Your task to perform on an android device: Search for "usb-c" on target, select the first entry, and add it to the cart. Image 0: 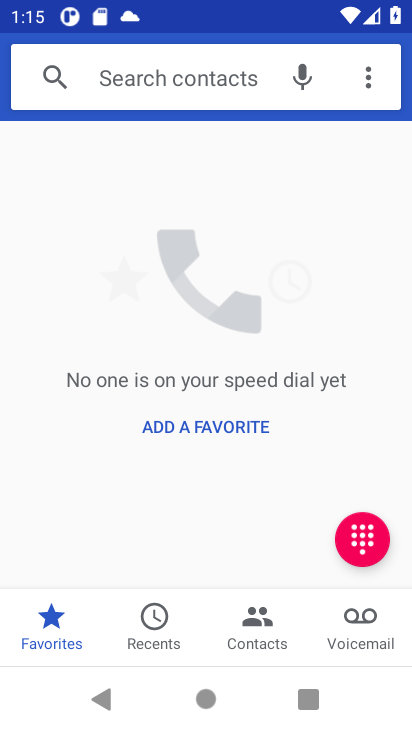
Step 0: press home button
Your task to perform on an android device: Search for "usb-c" on target, select the first entry, and add it to the cart. Image 1: 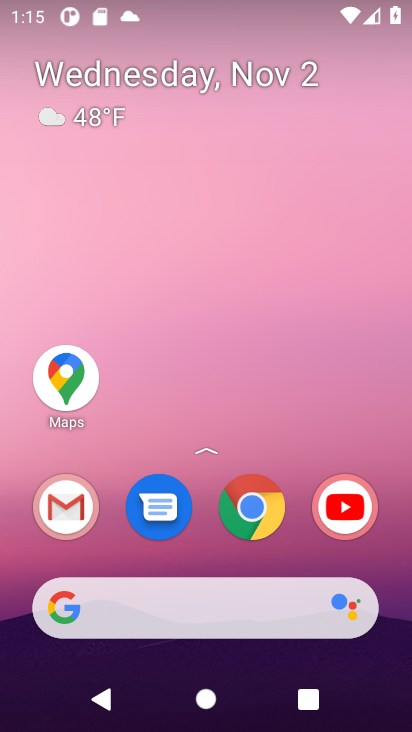
Step 1: click (123, 610)
Your task to perform on an android device: Search for "usb-c" on target, select the first entry, and add it to the cart. Image 2: 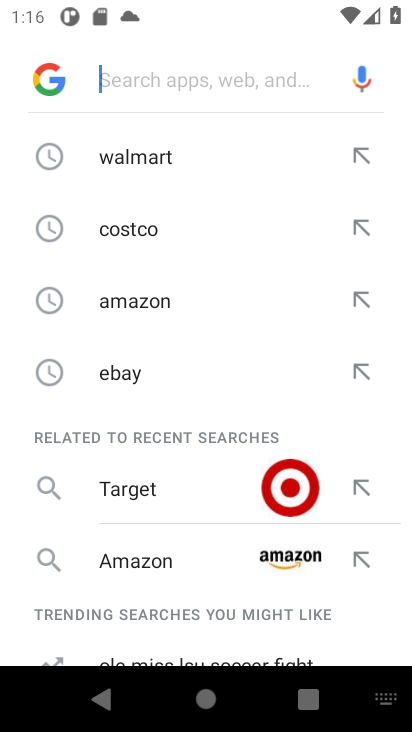
Step 2: type "target"
Your task to perform on an android device: Search for "usb-c" on target, select the first entry, and add it to the cart. Image 3: 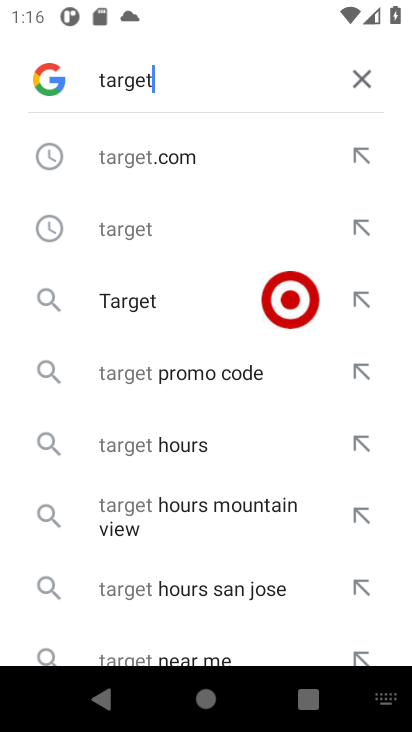
Step 3: type ""
Your task to perform on an android device: Search for "usb-c" on target, select the first entry, and add it to the cart. Image 4: 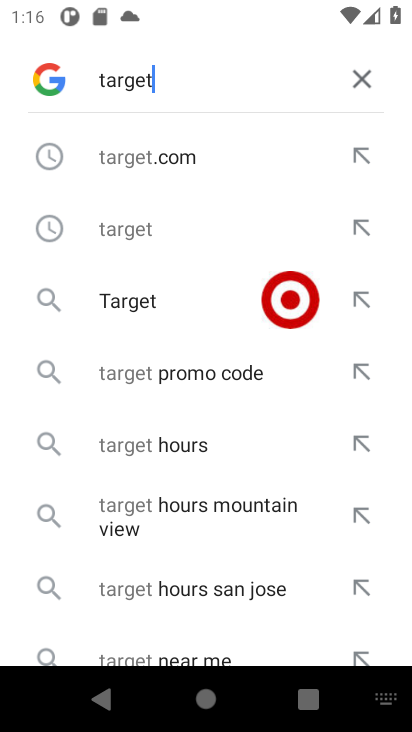
Step 4: click (147, 146)
Your task to perform on an android device: Search for "usb-c" on target, select the first entry, and add it to the cart. Image 5: 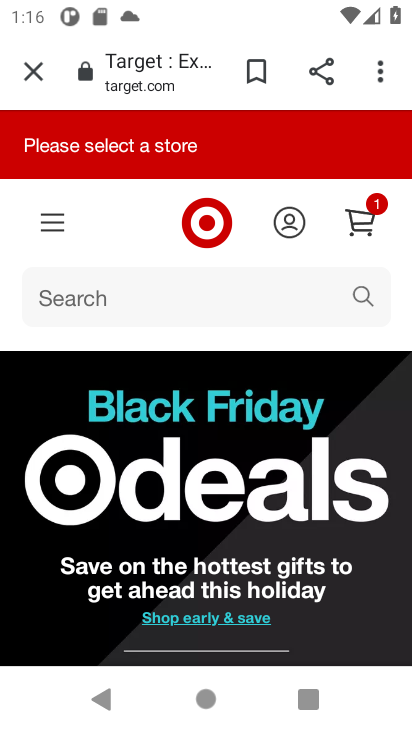
Step 5: click (245, 292)
Your task to perform on an android device: Search for "usb-c" on target, select the first entry, and add it to the cart. Image 6: 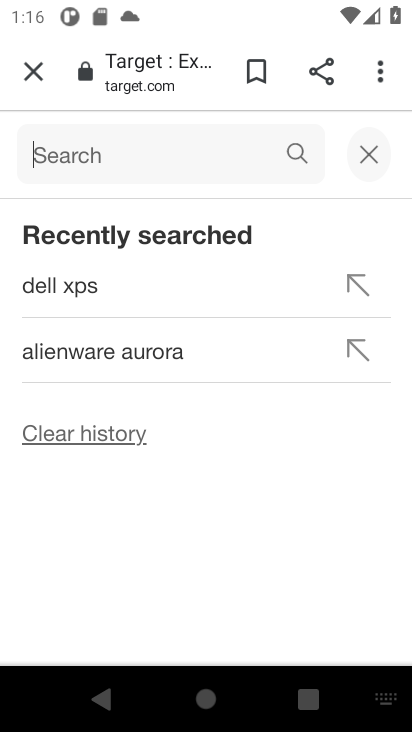
Step 6: type "usb-c"
Your task to perform on an android device: Search for "usb-c" on target, select the first entry, and add it to the cart. Image 7: 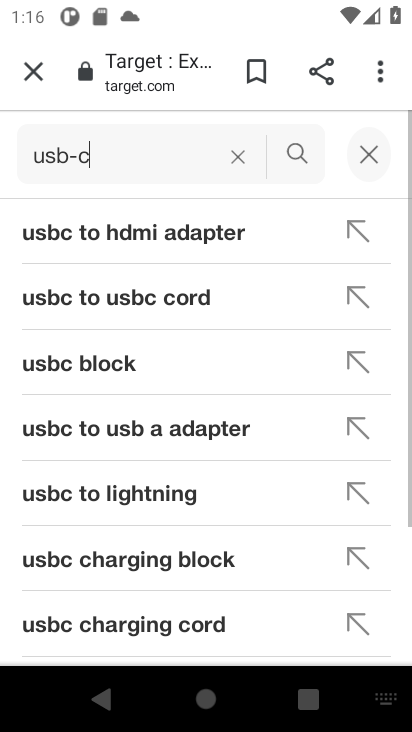
Step 7: type ""
Your task to perform on an android device: Search for "usb-c" on target, select the first entry, and add it to the cart. Image 8: 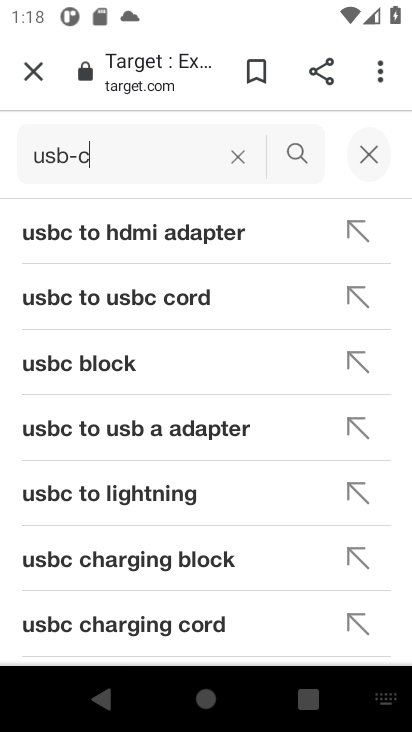
Step 8: click (296, 149)
Your task to perform on an android device: Search for "usb-c" on target, select the first entry, and add it to the cart. Image 9: 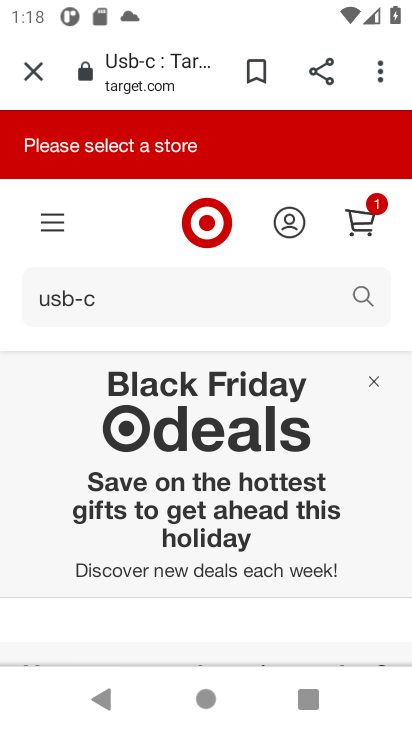
Step 9: drag from (284, 486) to (287, 195)
Your task to perform on an android device: Search for "usb-c" on target, select the first entry, and add it to the cart. Image 10: 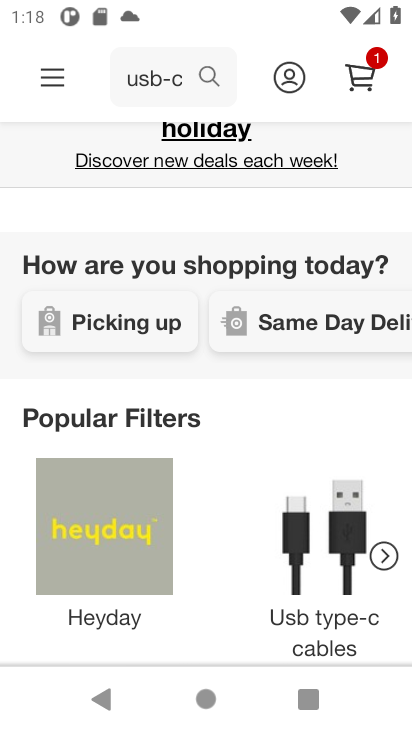
Step 10: drag from (281, 354) to (271, 292)
Your task to perform on an android device: Search for "usb-c" on target, select the first entry, and add it to the cart. Image 11: 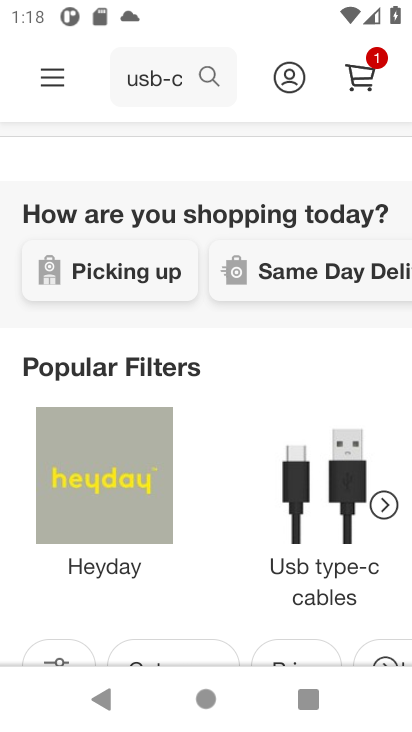
Step 11: drag from (250, 562) to (253, 334)
Your task to perform on an android device: Search for "usb-c" on target, select the first entry, and add it to the cart. Image 12: 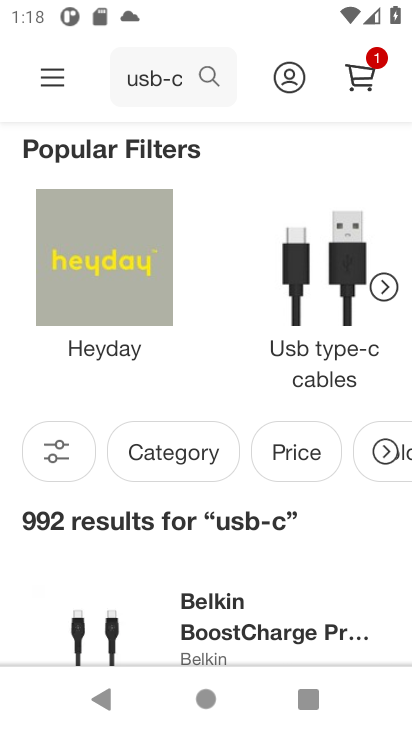
Step 12: drag from (280, 553) to (293, 54)
Your task to perform on an android device: Search for "usb-c" on target, select the first entry, and add it to the cart. Image 13: 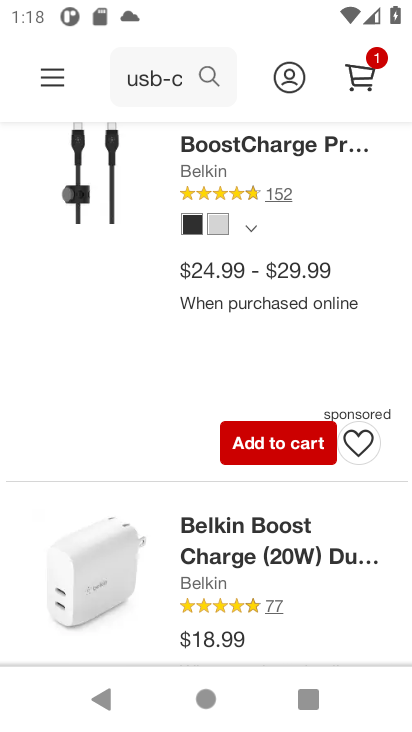
Step 13: click (253, 432)
Your task to perform on an android device: Search for "usb-c" on target, select the first entry, and add it to the cart. Image 14: 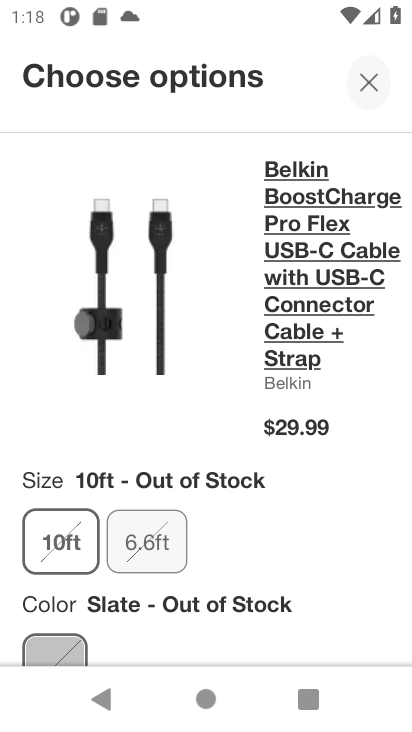
Step 14: drag from (246, 541) to (247, 206)
Your task to perform on an android device: Search for "usb-c" on target, select the first entry, and add it to the cart. Image 15: 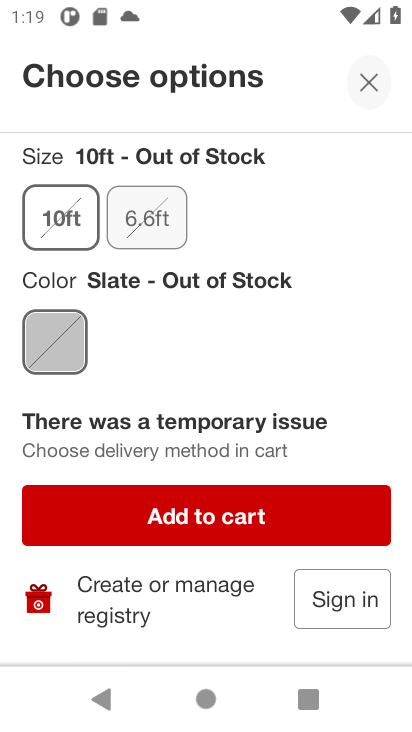
Step 15: drag from (301, 247) to (357, 534)
Your task to perform on an android device: Search for "usb-c" on target, select the first entry, and add it to the cart. Image 16: 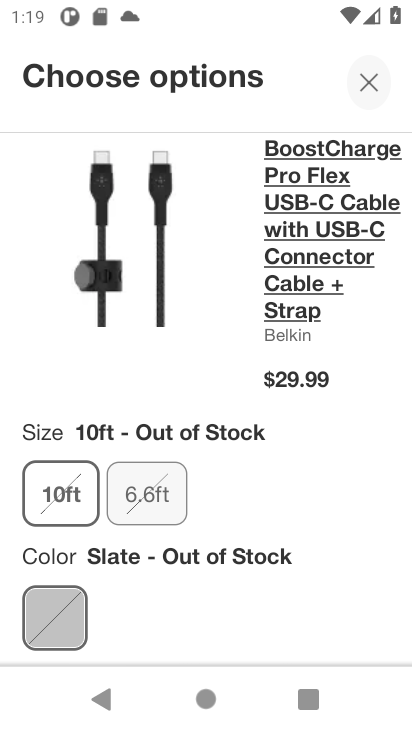
Step 16: drag from (332, 347) to (357, 556)
Your task to perform on an android device: Search for "usb-c" on target, select the first entry, and add it to the cart. Image 17: 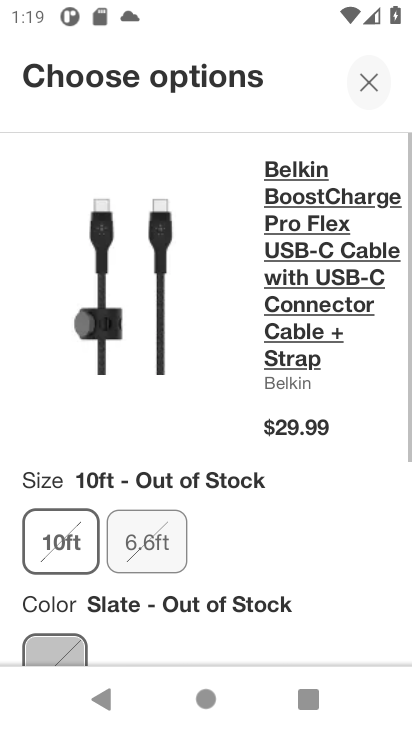
Step 17: drag from (307, 298) to (306, 481)
Your task to perform on an android device: Search for "usb-c" on target, select the first entry, and add it to the cart. Image 18: 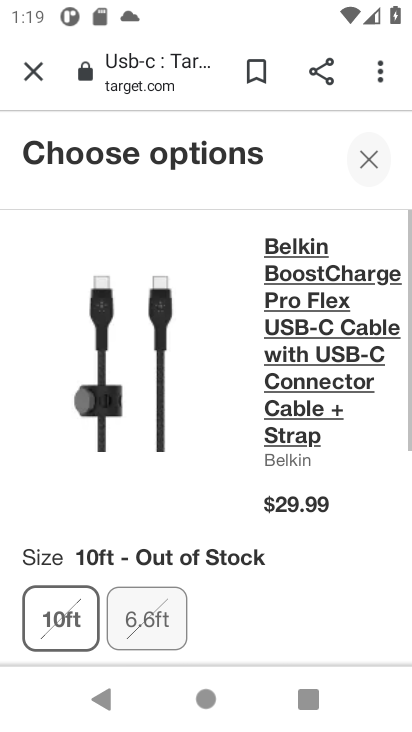
Step 18: drag from (296, 272) to (326, 541)
Your task to perform on an android device: Search for "usb-c" on target, select the first entry, and add it to the cart. Image 19: 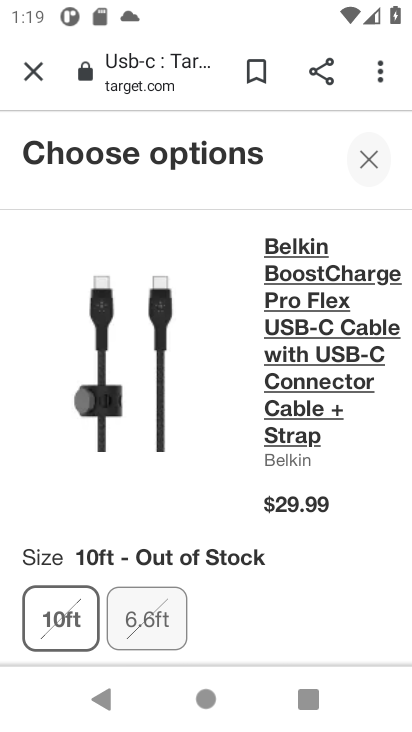
Step 19: drag from (285, 429) to (279, 536)
Your task to perform on an android device: Search for "usb-c" on target, select the first entry, and add it to the cart. Image 20: 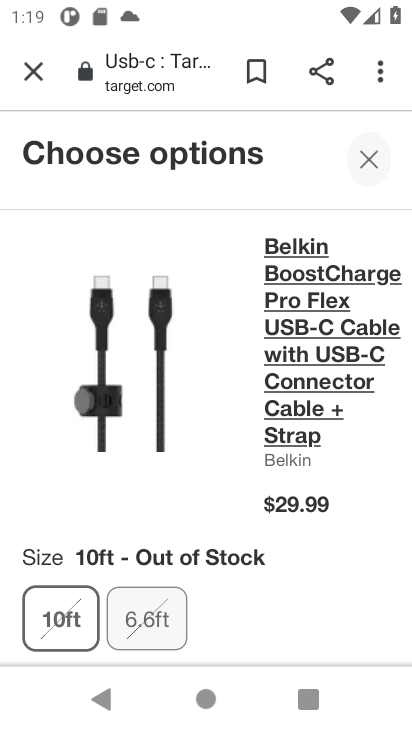
Step 20: drag from (274, 575) to (245, 308)
Your task to perform on an android device: Search for "usb-c" on target, select the first entry, and add it to the cart. Image 21: 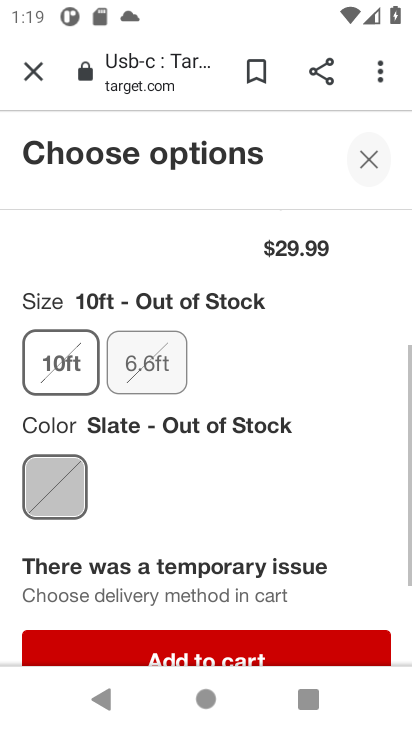
Step 21: drag from (238, 544) to (245, 308)
Your task to perform on an android device: Search for "usb-c" on target, select the first entry, and add it to the cart. Image 22: 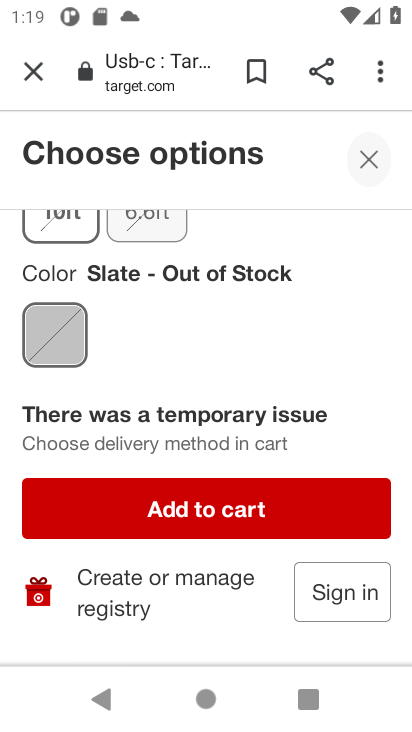
Step 22: click (221, 517)
Your task to perform on an android device: Search for "usb-c" on target, select the first entry, and add it to the cart. Image 23: 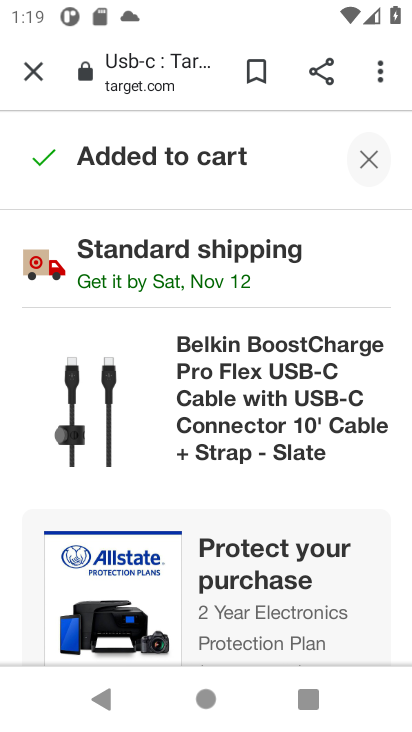
Step 23: task complete